Your task to perform on an android device: Open network settings Image 0: 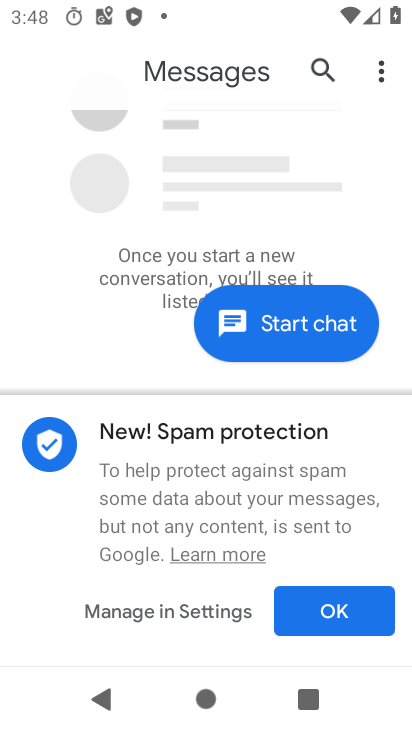
Step 0: press home button
Your task to perform on an android device: Open network settings Image 1: 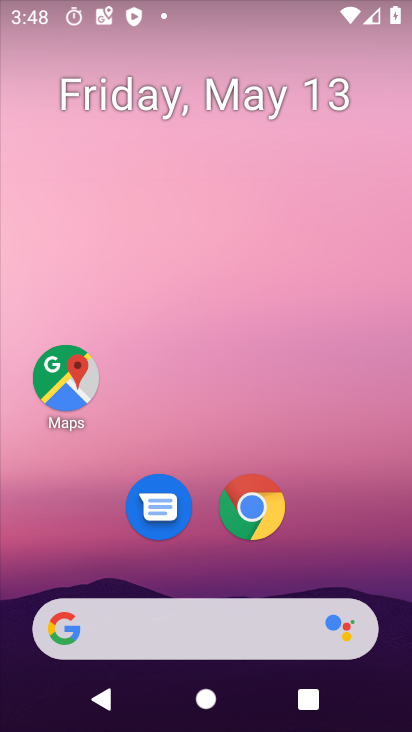
Step 1: drag from (249, 576) to (254, 67)
Your task to perform on an android device: Open network settings Image 2: 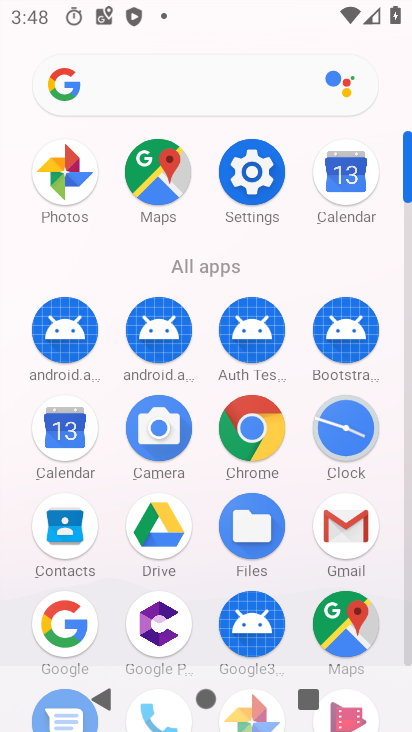
Step 2: click (240, 176)
Your task to perform on an android device: Open network settings Image 3: 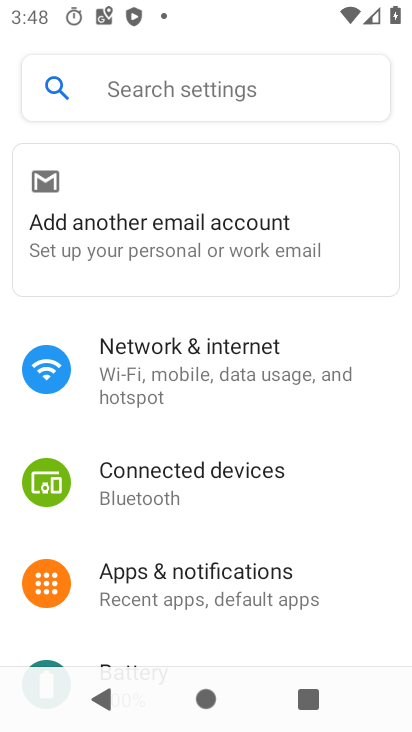
Step 3: click (280, 383)
Your task to perform on an android device: Open network settings Image 4: 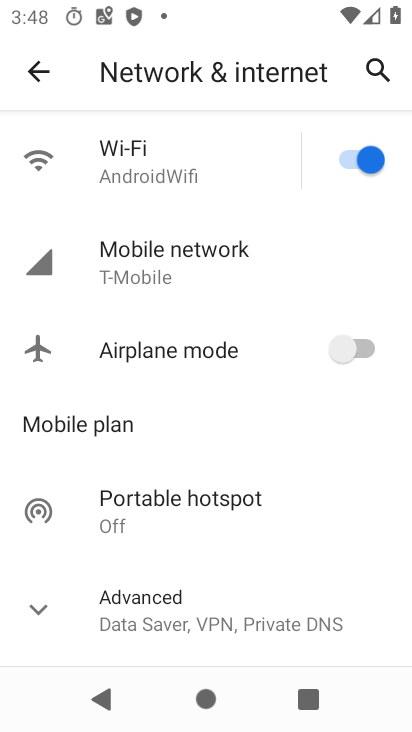
Step 4: click (202, 277)
Your task to perform on an android device: Open network settings Image 5: 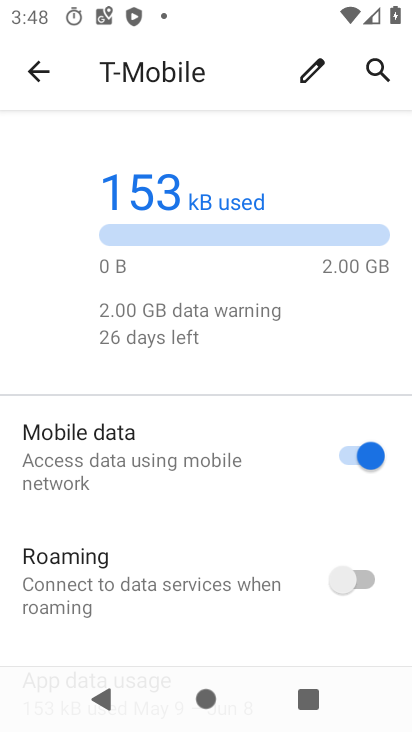
Step 5: task complete